Your task to perform on an android device: see tabs open on other devices in the chrome app Image 0: 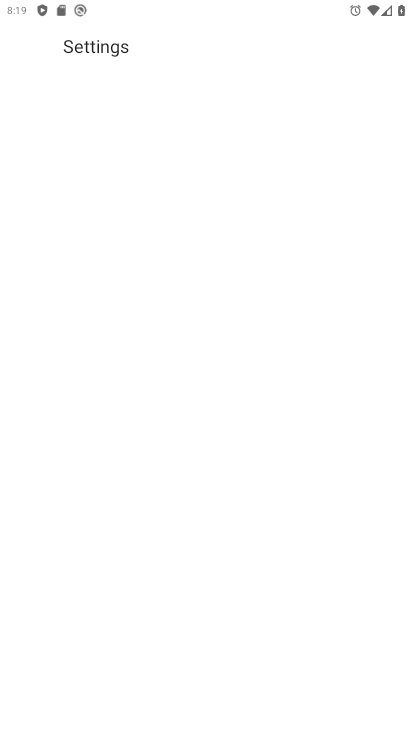
Step 0: drag from (206, 729) to (259, 169)
Your task to perform on an android device: see tabs open on other devices in the chrome app Image 1: 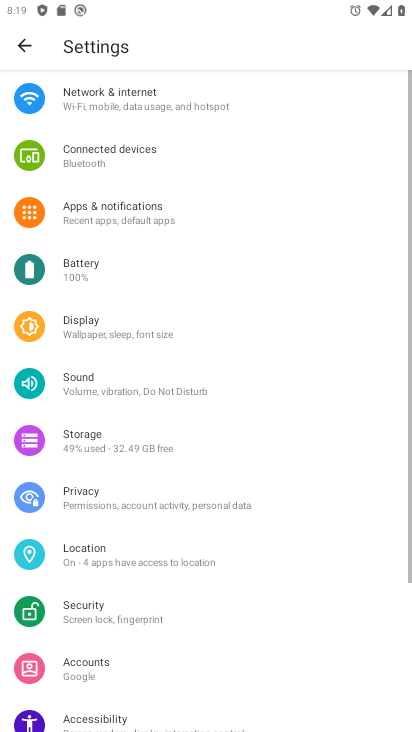
Step 1: press home button
Your task to perform on an android device: see tabs open on other devices in the chrome app Image 2: 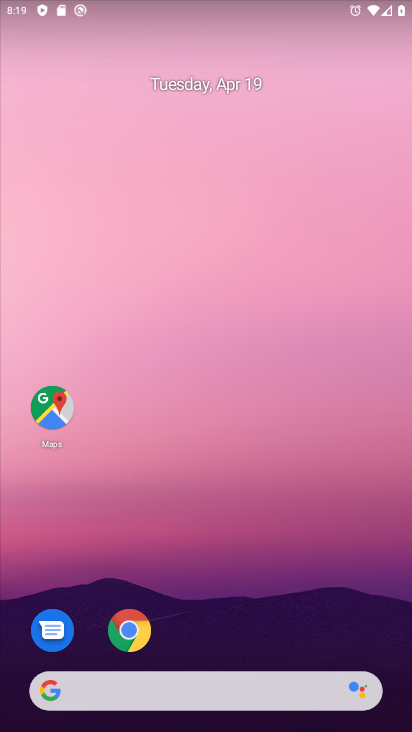
Step 2: click (129, 632)
Your task to perform on an android device: see tabs open on other devices in the chrome app Image 3: 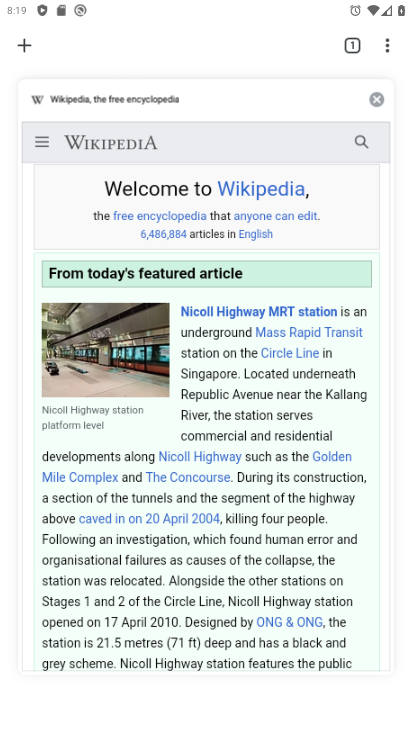
Step 3: task complete